Your task to perform on an android device: Open location settings Image 0: 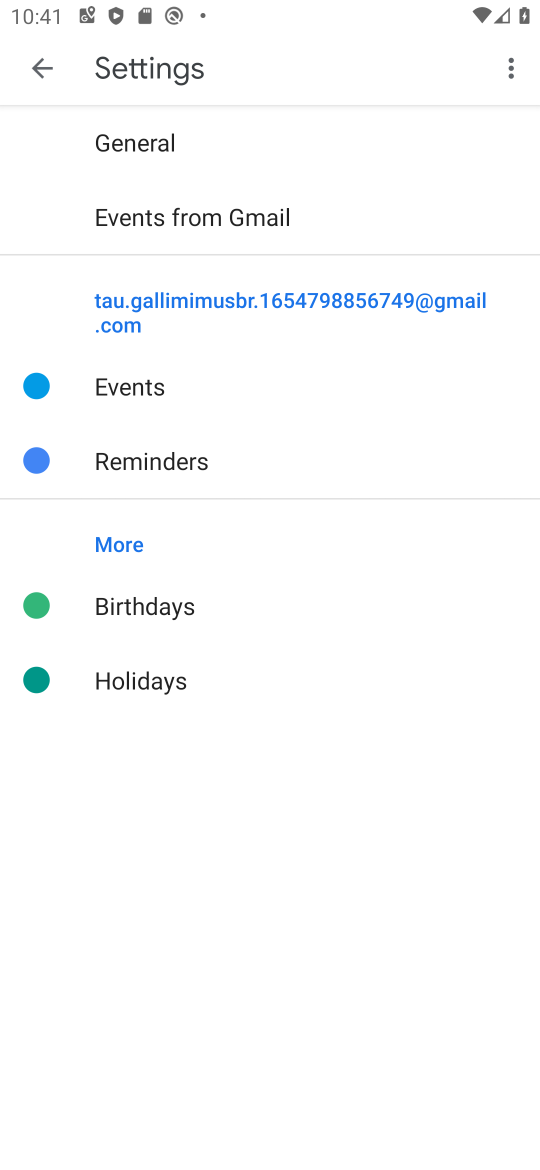
Step 0: press back button
Your task to perform on an android device: Open location settings Image 1: 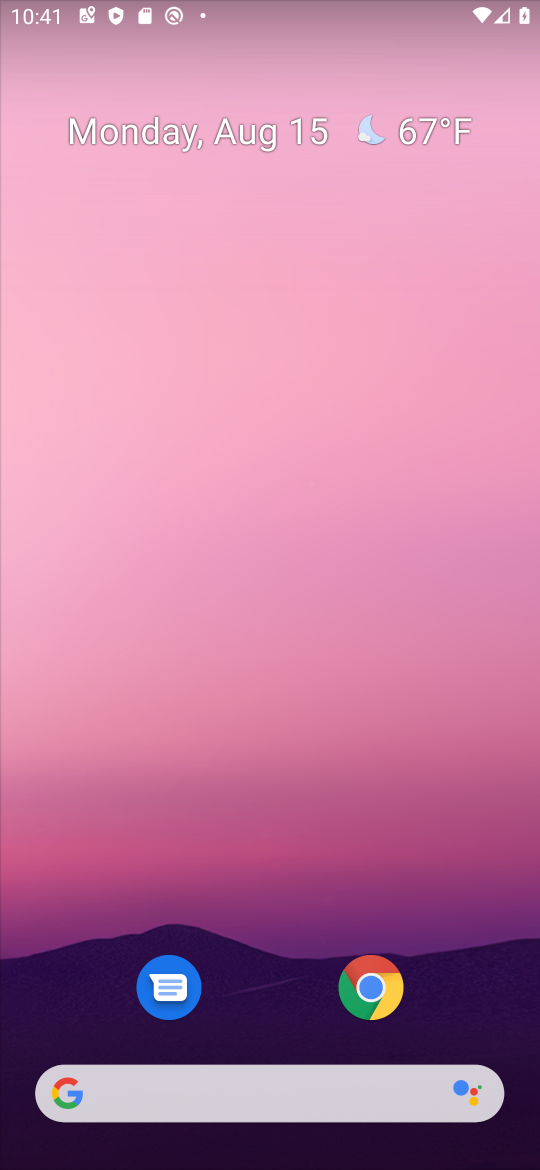
Step 1: drag from (302, 1000) to (243, 338)
Your task to perform on an android device: Open location settings Image 2: 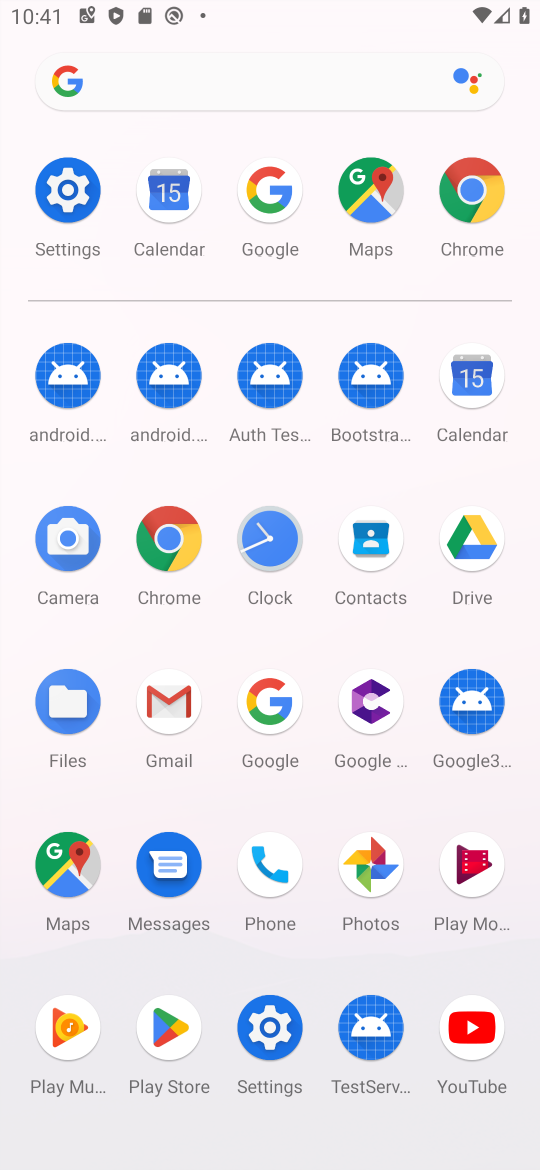
Step 2: click (270, 1022)
Your task to perform on an android device: Open location settings Image 3: 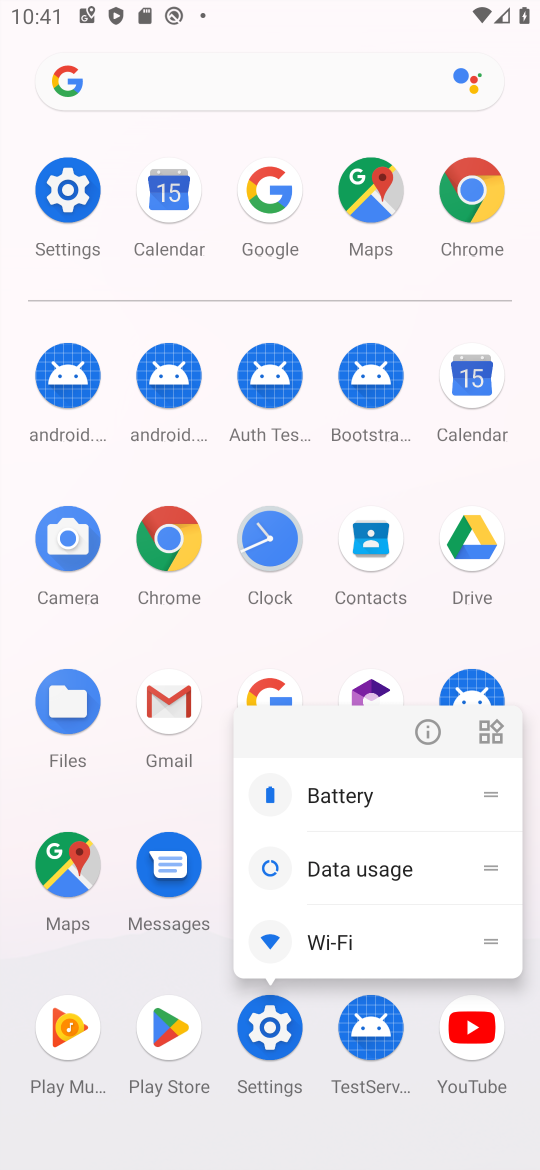
Step 3: click (260, 1031)
Your task to perform on an android device: Open location settings Image 4: 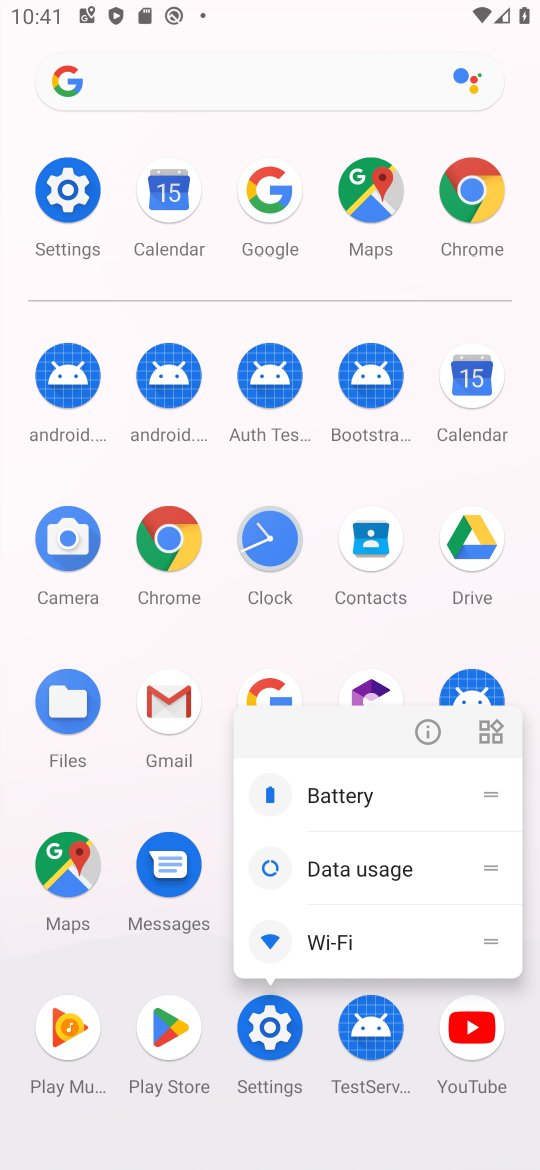
Step 4: click (263, 1037)
Your task to perform on an android device: Open location settings Image 5: 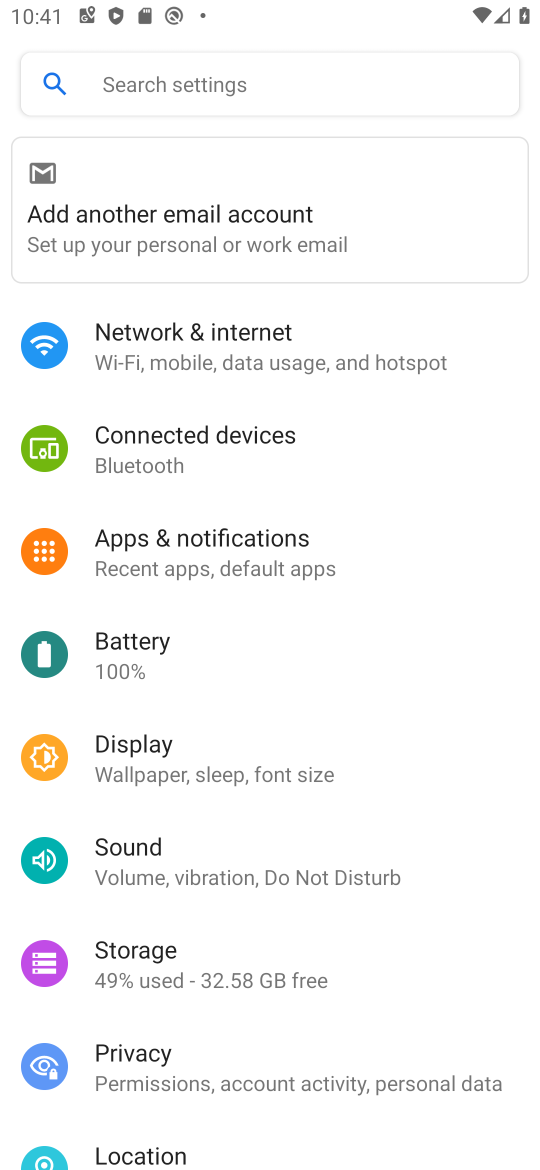
Step 5: click (138, 1142)
Your task to perform on an android device: Open location settings Image 6: 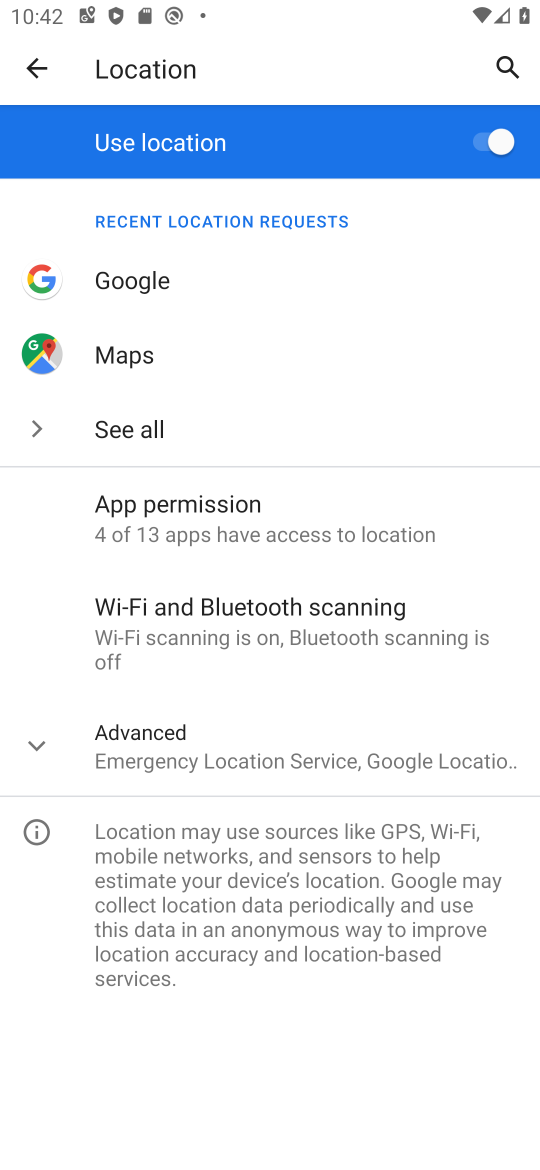
Step 6: click (176, 765)
Your task to perform on an android device: Open location settings Image 7: 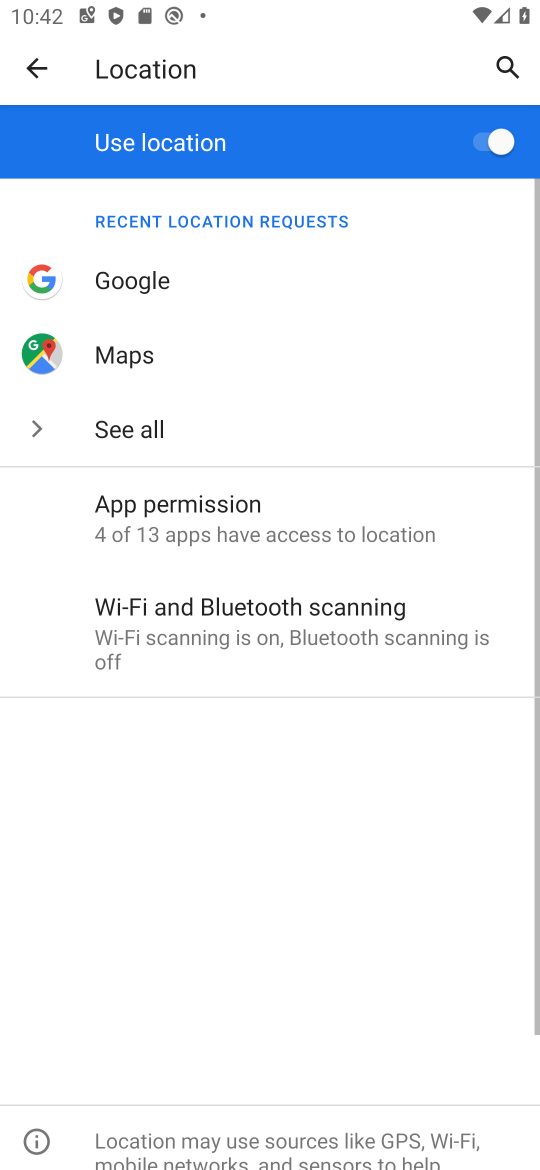
Step 7: task complete